Your task to perform on an android device: turn on showing notifications on the lock screen Image 0: 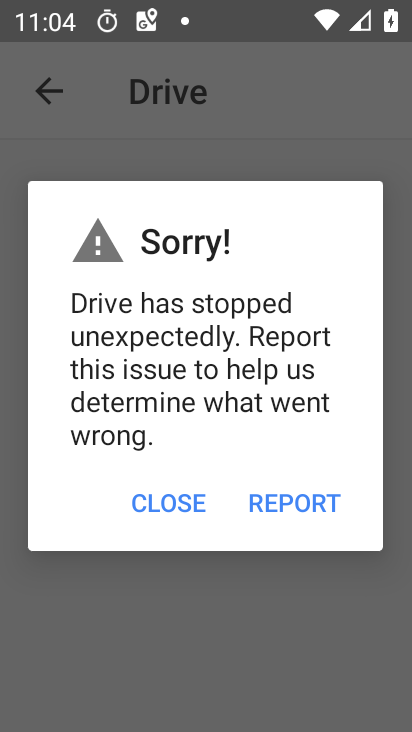
Step 0: click (156, 512)
Your task to perform on an android device: turn on showing notifications on the lock screen Image 1: 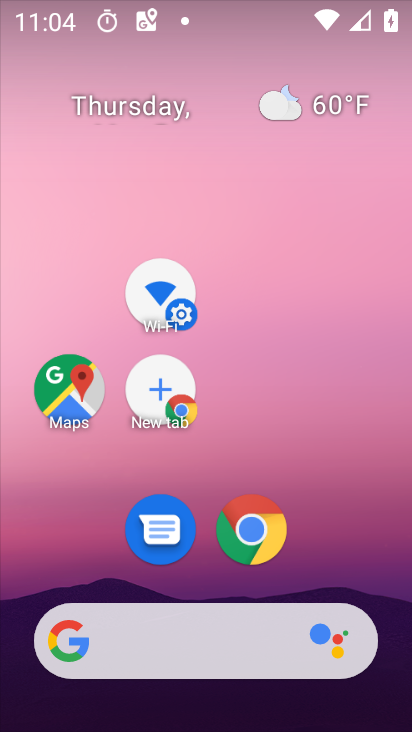
Step 1: drag from (373, 589) to (117, 122)
Your task to perform on an android device: turn on showing notifications on the lock screen Image 2: 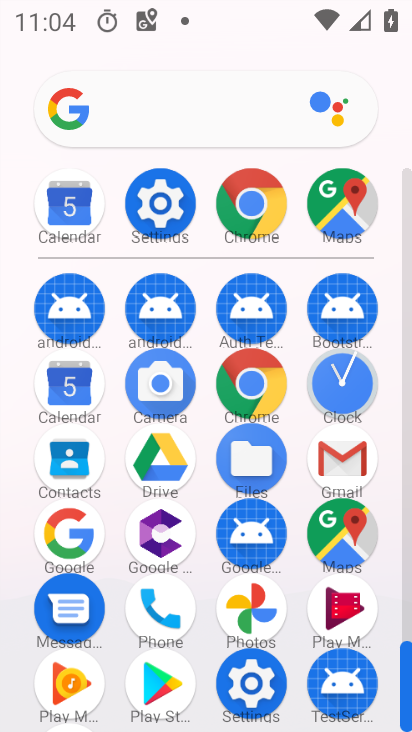
Step 2: click (193, 197)
Your task to perform on an android device: turn on showing notifications on the lock screen Image 3: 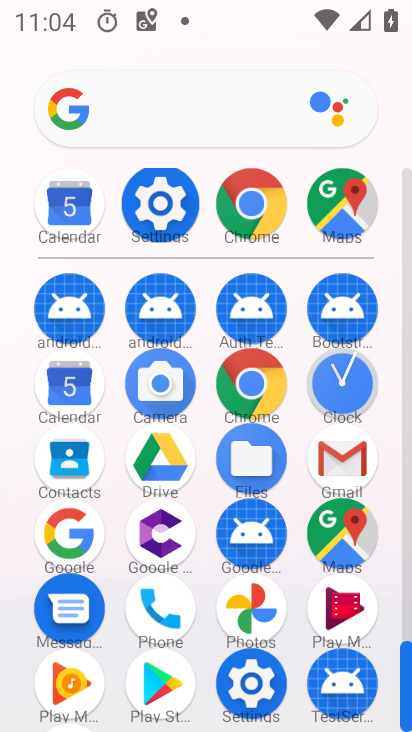
Step 3: click (173, 203)
Your task to perform on an android device: turn on showing notifications on the lock screen Image 4: 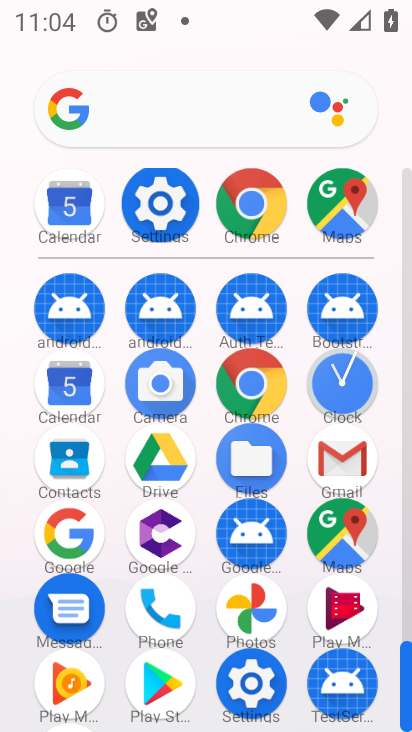
Step 4: click (173, 203)
Your task to perform on an android device: turn on showing notifications on the lock screen Image 5: 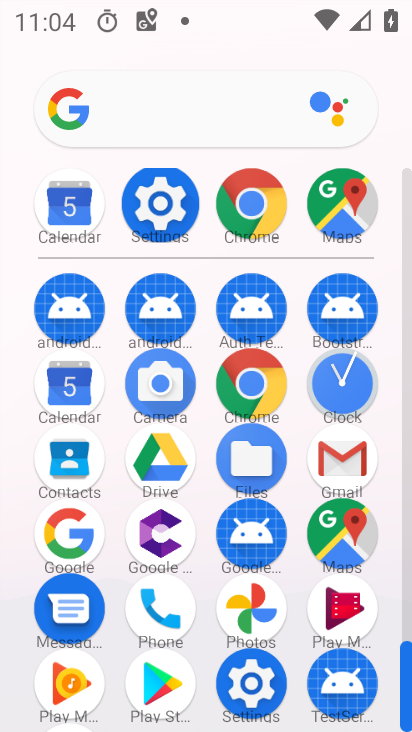
Step 5: click (173, 203)
Your task to perform on an android device: turn on showing notifications on the lock screen Image 6: 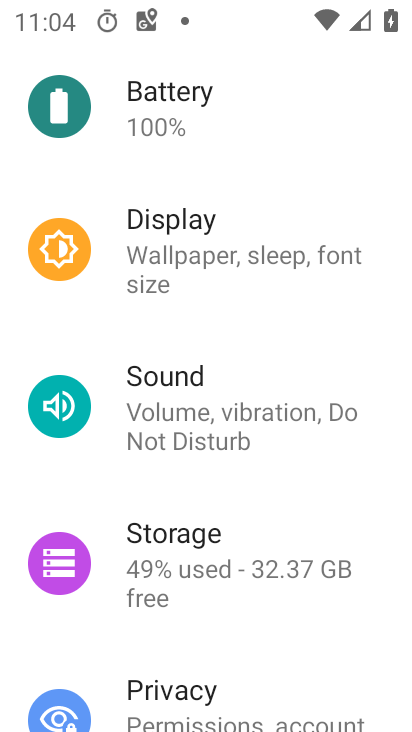
Step 6: drag from (170, 260) to (175, 608)
Your task to perform on an android device: turn on showing notifications on the lock screen Image 7: 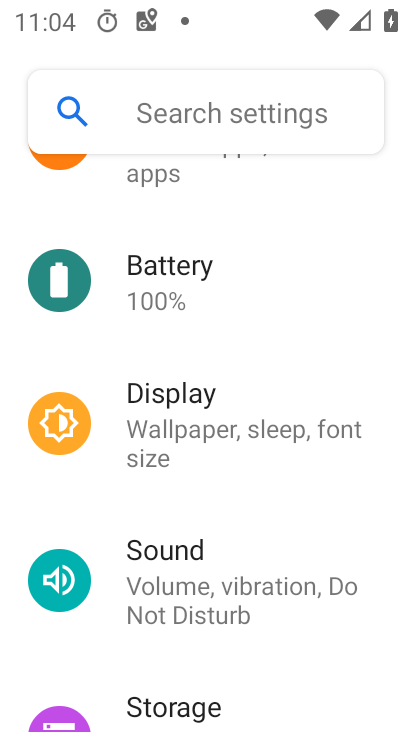
Step 7: drag from (178, 310) to (212, 639)
Your task to perform on an android device: turn on showing notifications on the lock screen Image 8: 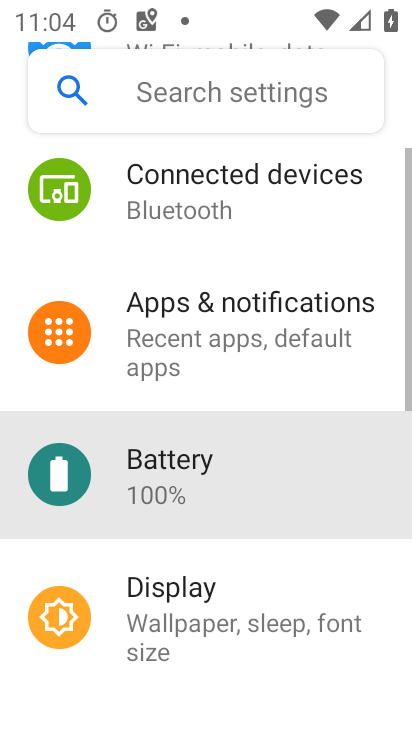
Step 8: drag from (101, 325) to (197, 637)
Your task to perform on an android device: turn on showing notifications on the lock screen Image 9: 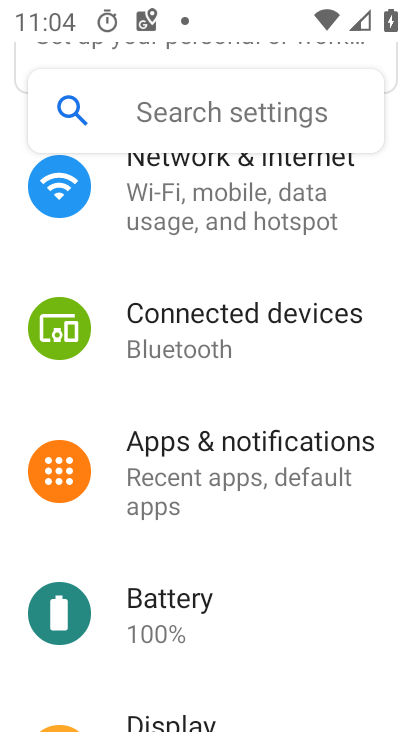
Step 9: click (204, 464)
Your task to perform on an android device: turn on showing notifications on the lock screen Image 10: 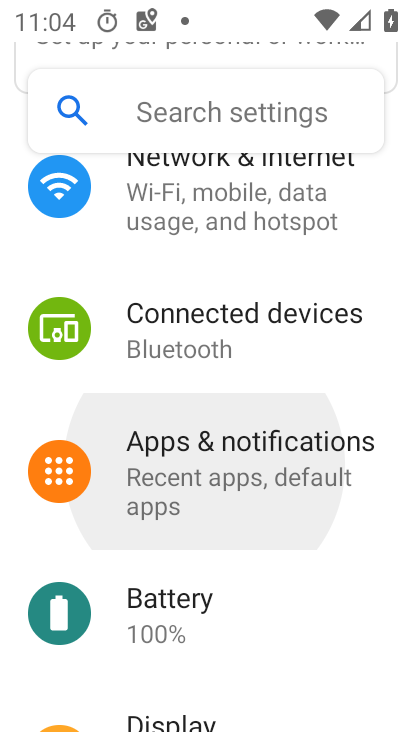
Step 10: click (203, 464)
Your task to perform on an android device: turn on showing notifications on the lock screen Image 11: 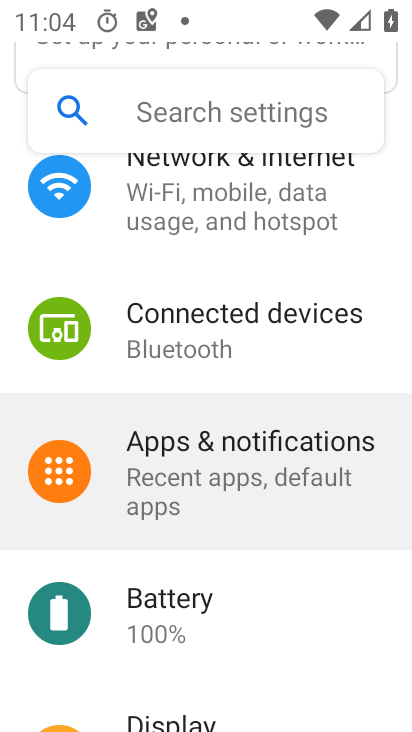
Step 11: click (203, 464)
Your task to perform on an android device: turn on showing notifications on the lock screen Image 12: 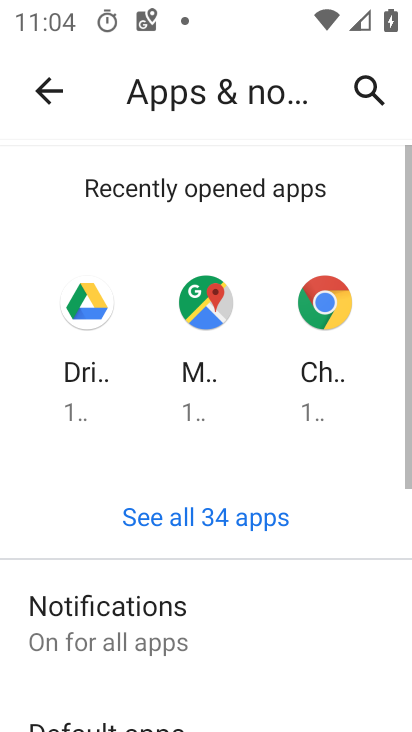
Step 12: drag from (222, 646) to (206, 198)
Your task to perform on an android device: turn on showing notifications on the lock screen Image 13: 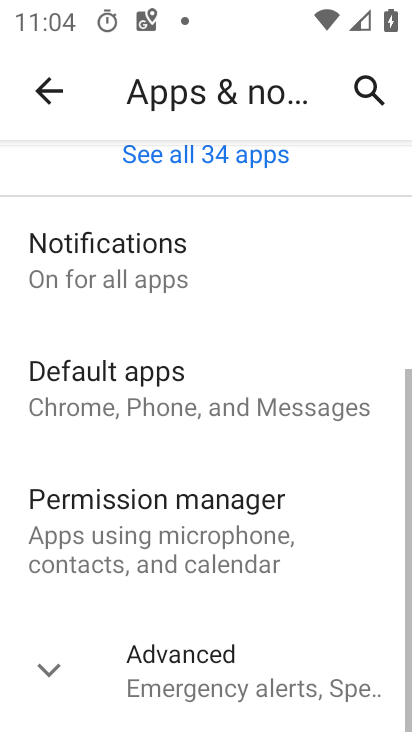
Step 13: drag from (307, 589) to (194, 182)
Your task to perform on an android device: turn on showing notifications on the lock screen Image 14: 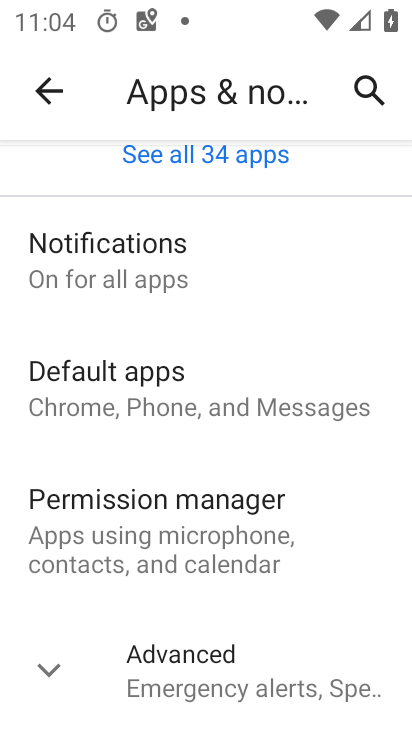
Step 14: click (105, 270)
Your task to perform on an android device: turn on showing notifications on the lock screen Image 15: 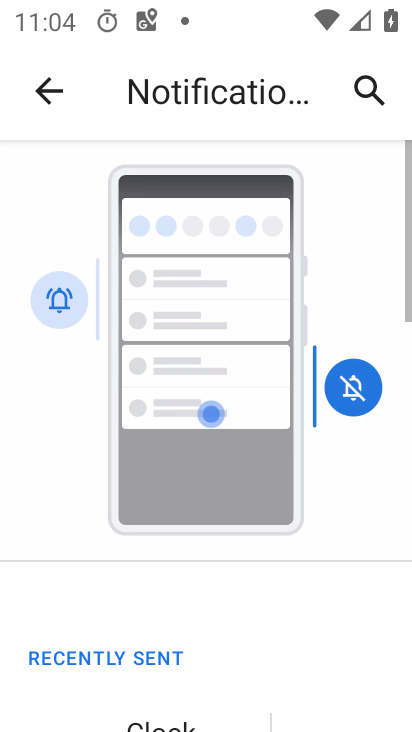
Step 15: drag from (262, 544) to (254, 63)
Your task to perform on an android device: turn on showing notifications on the lock screen Image 16: 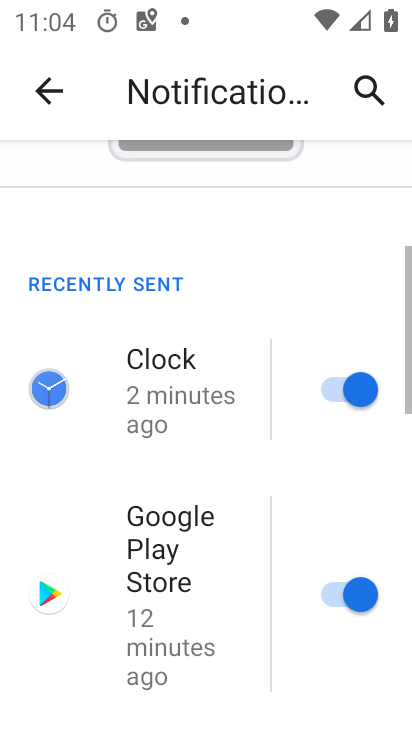
Step 16: drag from (378, 544) to (409, 35)
Your task to perform on an android device: turn on showing notifications on the lock screen Image 17: 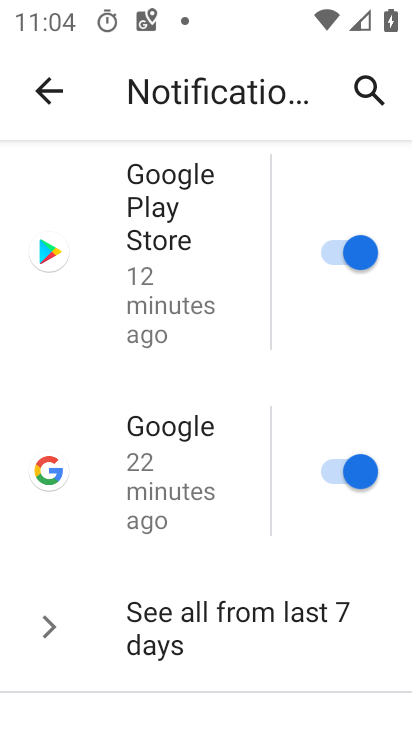
Step 17: drag from (238, 569) to (199, 69)
Your task to perform on an android device: turn on showing notifications on the lock screen Image 18: 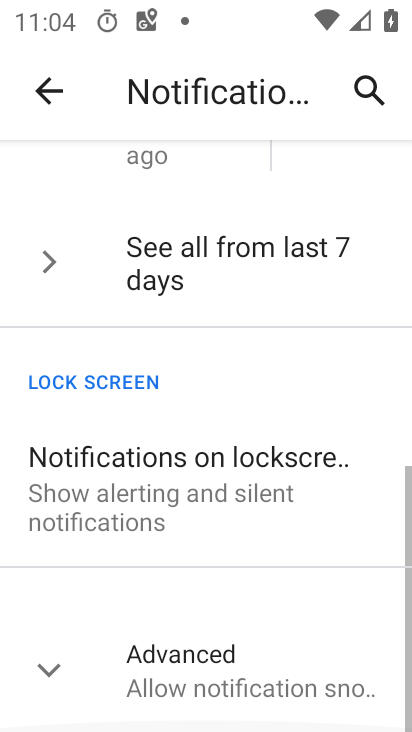
Step 18: drag from (244, 590) to (152, 109)
Your task to perform on an android device: turn on showing notifications on the lock screen Image 19: 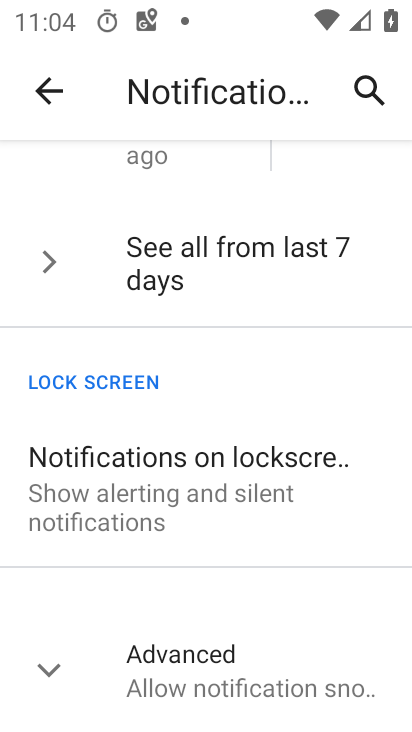
Step 19: click (199, 490)
Your task to perform on an android device: turn on showing notifications on the lock screen Image 20: 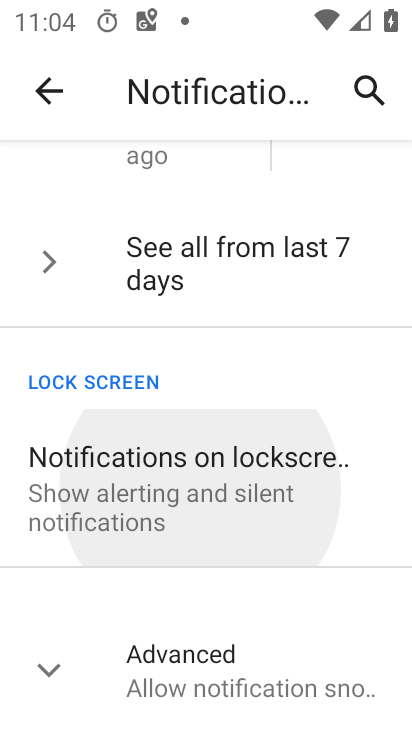
Step 20: click (199, 490)
Your task to perform on an android device: turn on showing notifications on the lock screen Image 21: 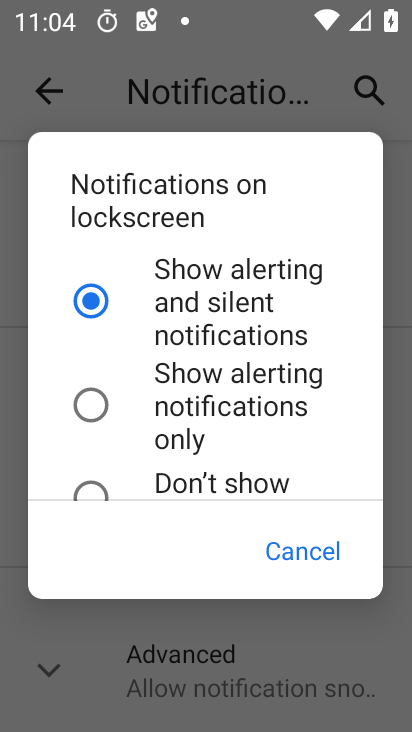
Step 21: task complete